Your task to perform on an android device: Do I have any events this weekend? Image 0: 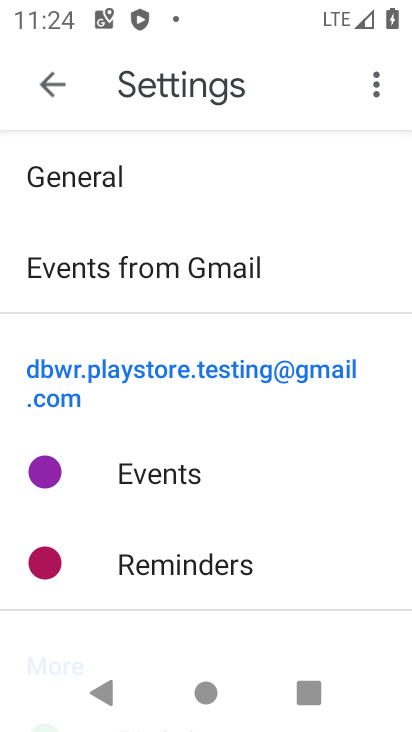
Step 0: press home button
Your task to perform on an android device: Do I have any events this weekend? Image 1: 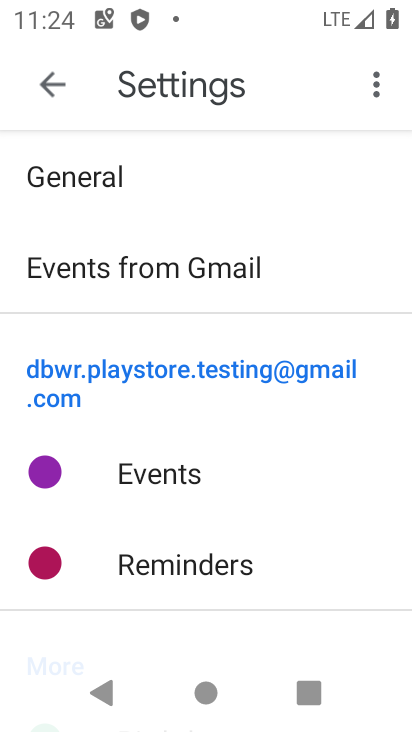
Step 1: press home button
Your task to perform on an android device: Do I have any events this weekend? Image 2: 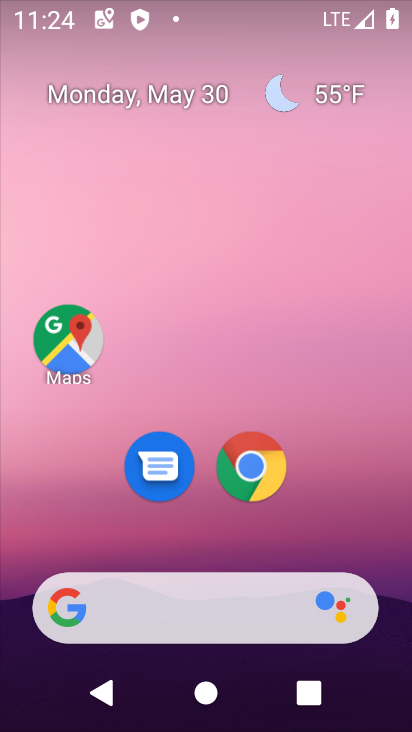
Step 2: drag from (364, 537) to (360, 207)
Your task to perform on an android device: Do I have any events this weekend? Image 3: 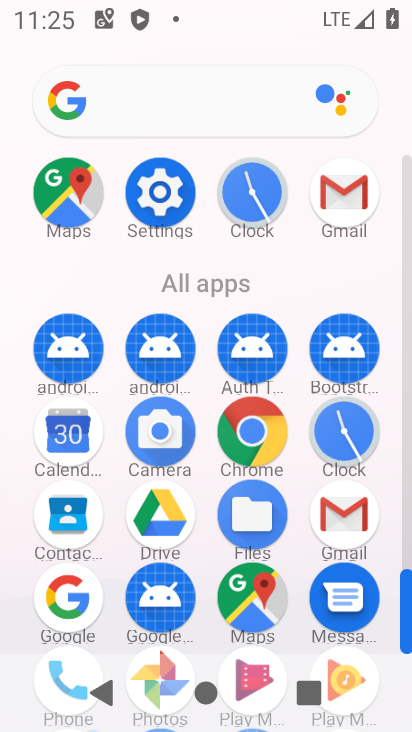
Step 3: click (81, 433)
Your task to perform on an android device: Do I have any events this weekend? Image 4: 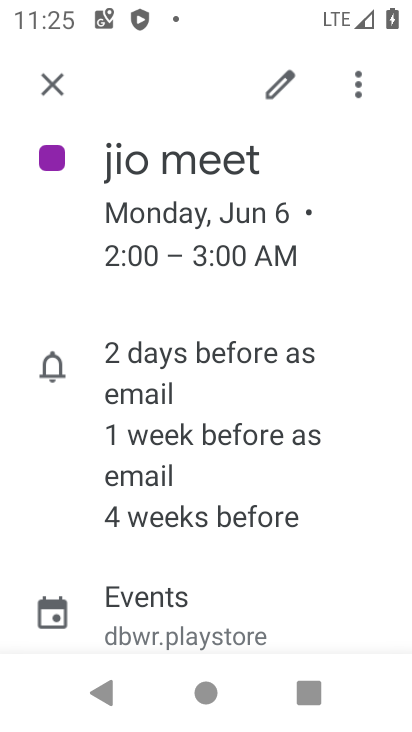
Step 4: click (53, 82)
Your task to perform on an android device: Do I have any events this weekend? Image 5: 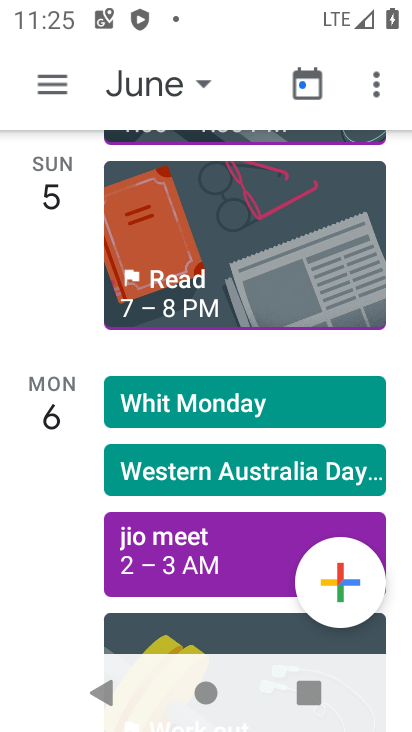
Step 5: click (137, 65)
Your task to perform on an android device: Do I have any events this weekend? Image 6: 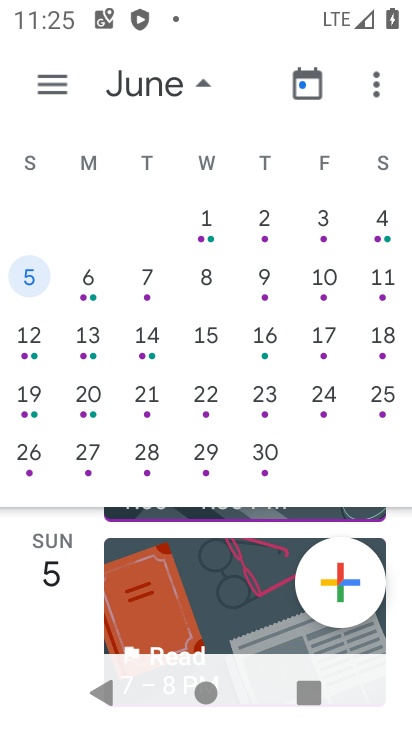
Step 6: click (331, 225)
Your task to perform on an android device: Do I have any events this weekend? Image 7: 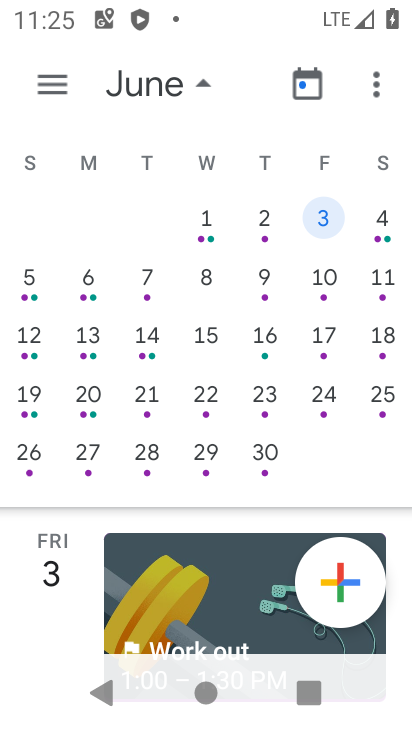
Step 7: click (58, 75)
Your task to perform on an android device: Do I have any events this weekend? Image 8: 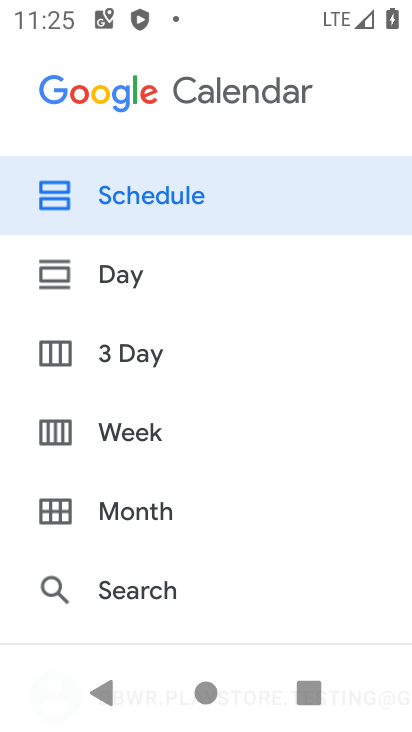
Step 8: click (136, 364)
Your task to perform on an android device: Do I have any events this weekend? Image 9: 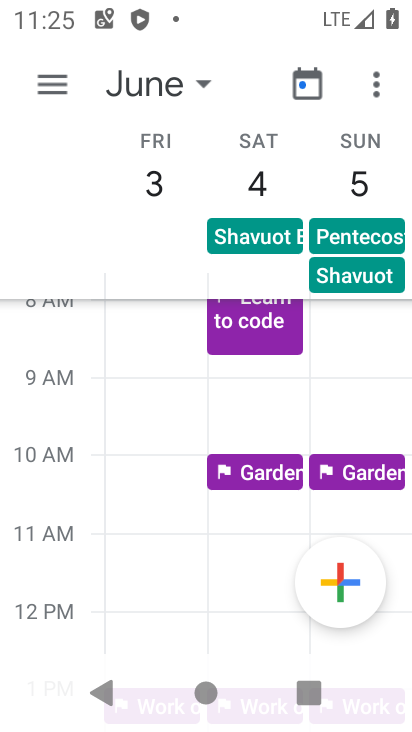
Step 9: task complete